Your task to perform on an android device: Open network settings Image 0: 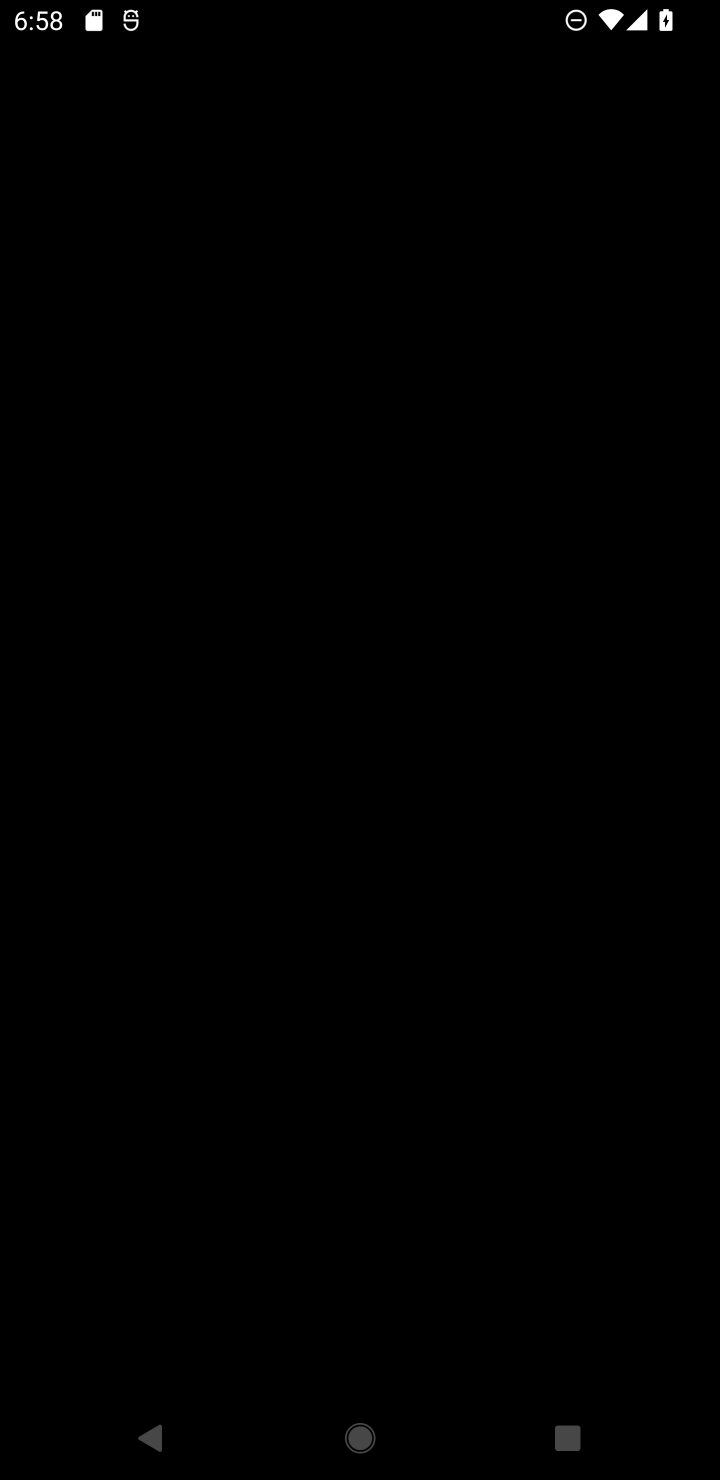
Step 0: press home button
Your task to perform on an android device: Open network settings Image 1: 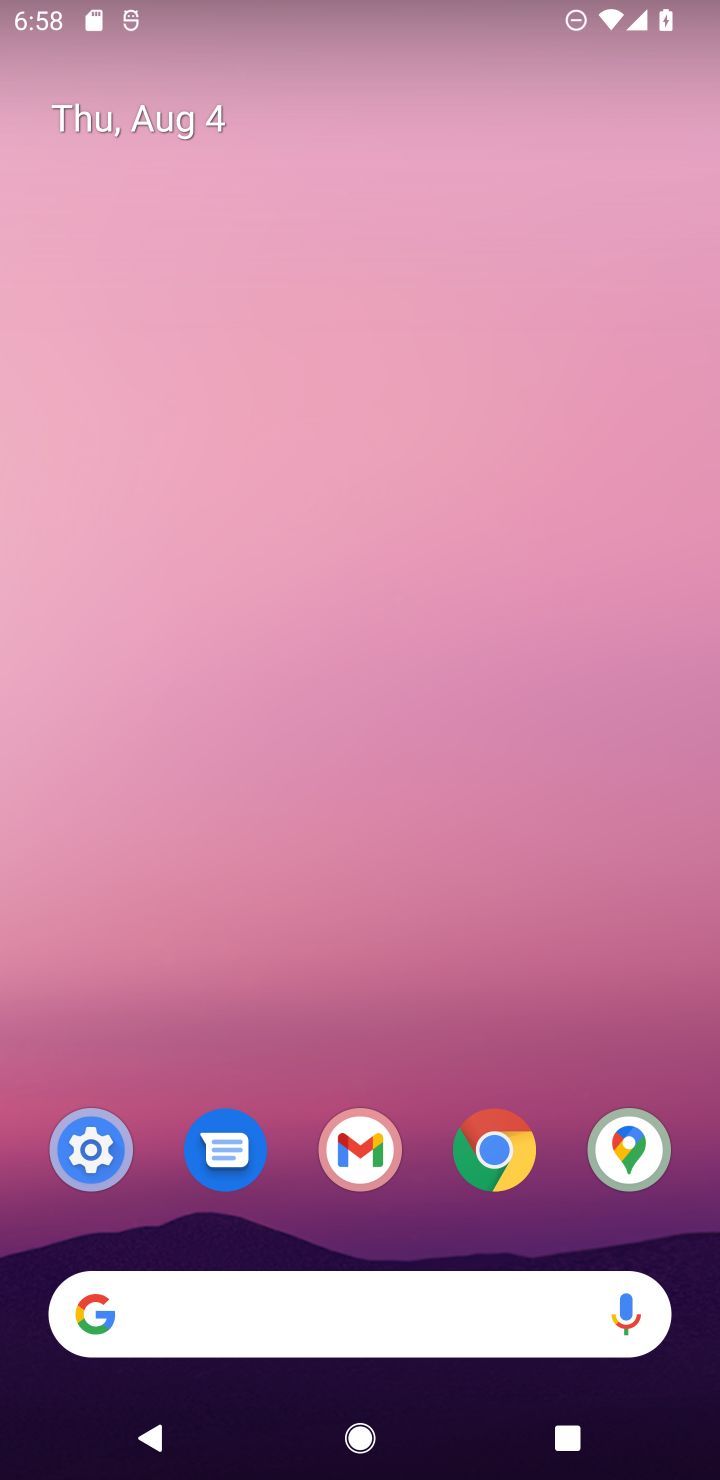
Step 1: drag from (439, 1337) to (423, 12)
Your task to perform on an android device: Open network settings Image 2: 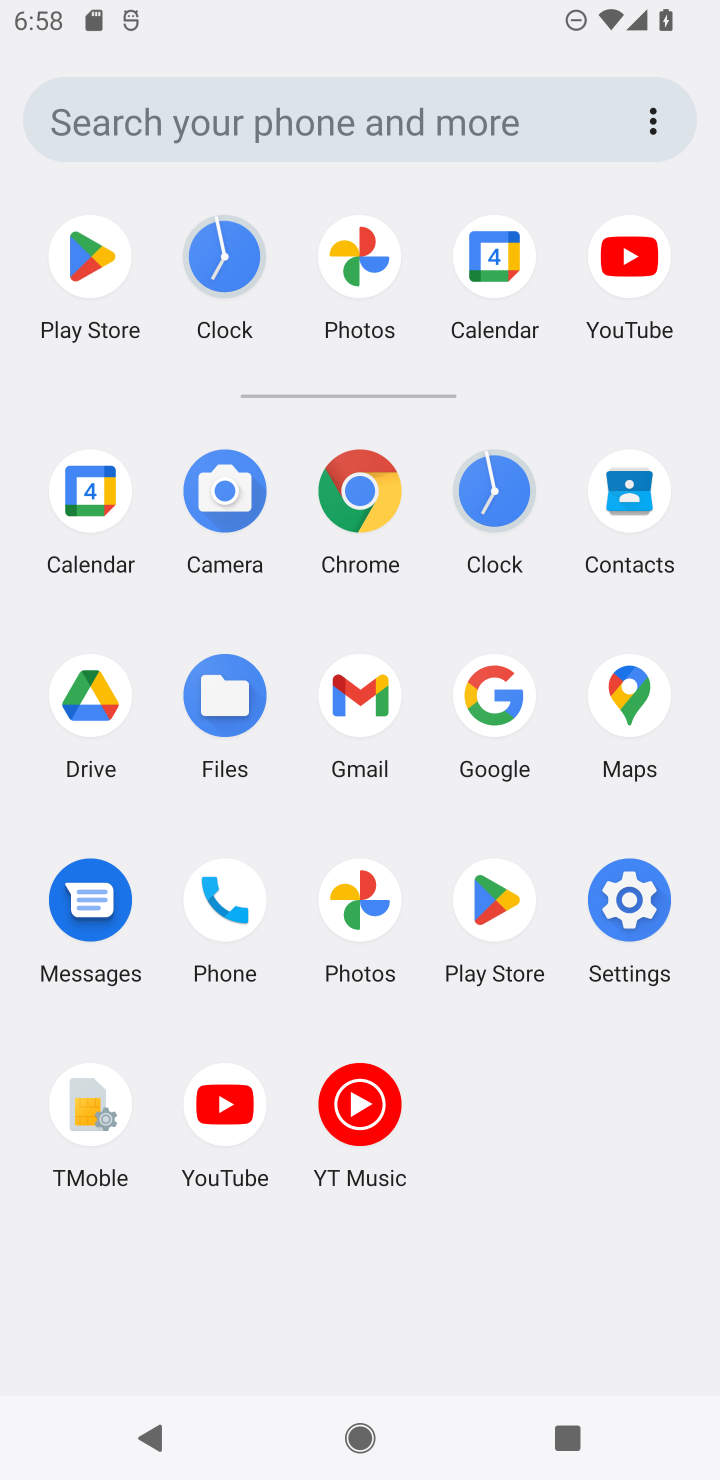
Step 2: click (633, 898)
Your task to perform on an android device: Open network settings Image 3: 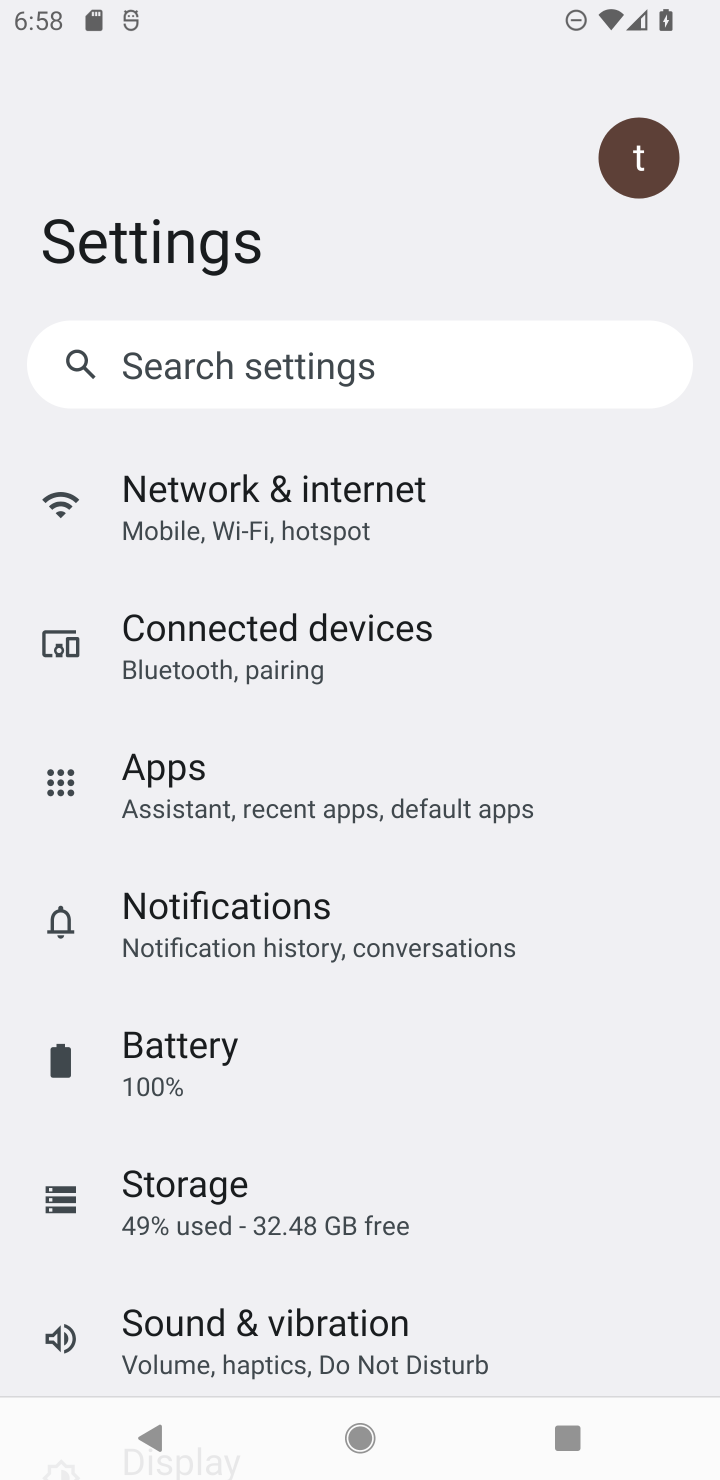
Step 3: click (326, 491)
Your task to perform on an android device: Open network settings Image 4: 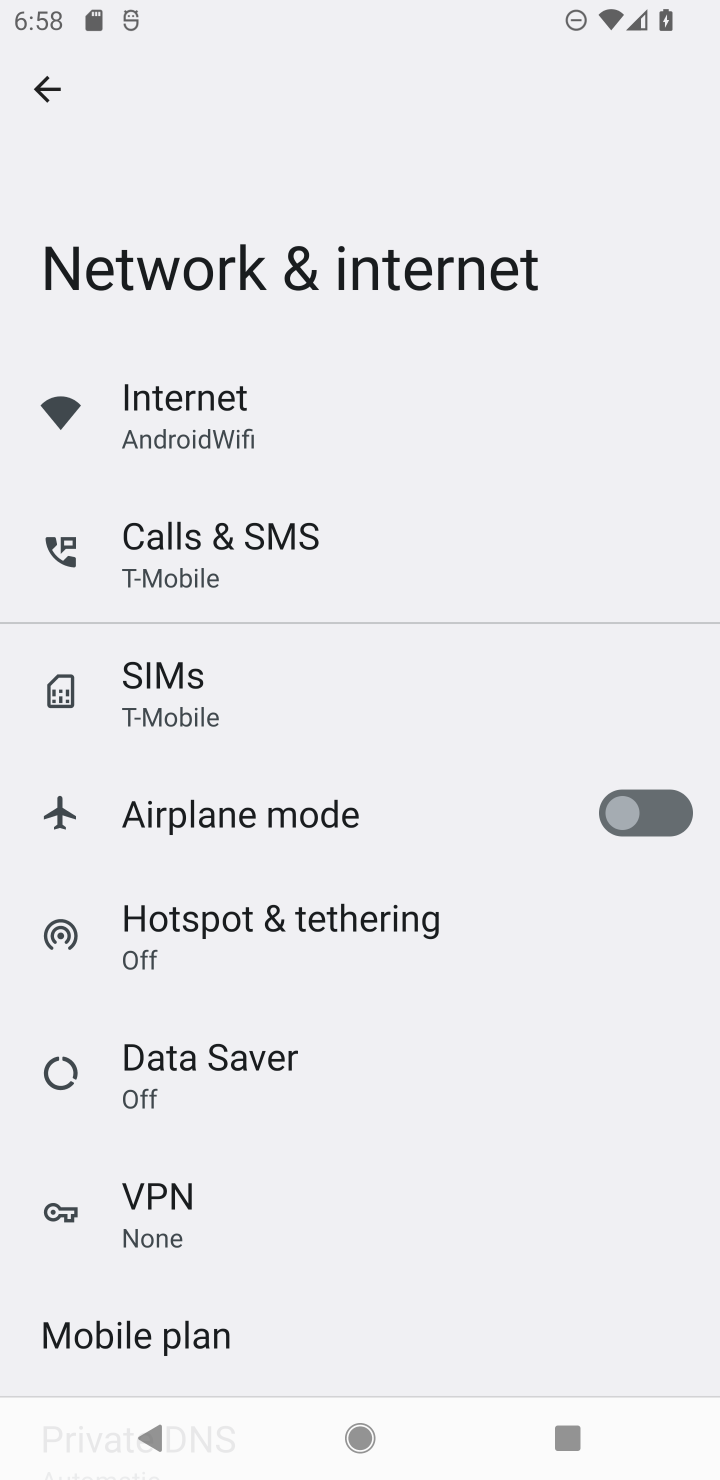
Step 4: task complete